Your task to perform on an android device: turn off notifications settings in the gmail app Image 0: 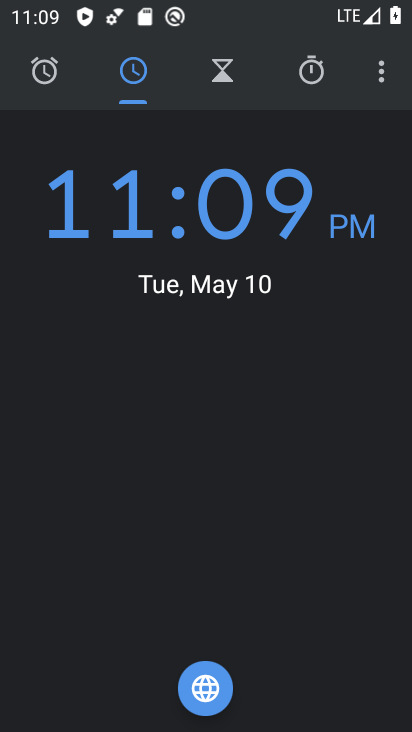
Step 0: press home button
Your task to perform on an android device: turn off notifications settings in the gmail app Image 1: 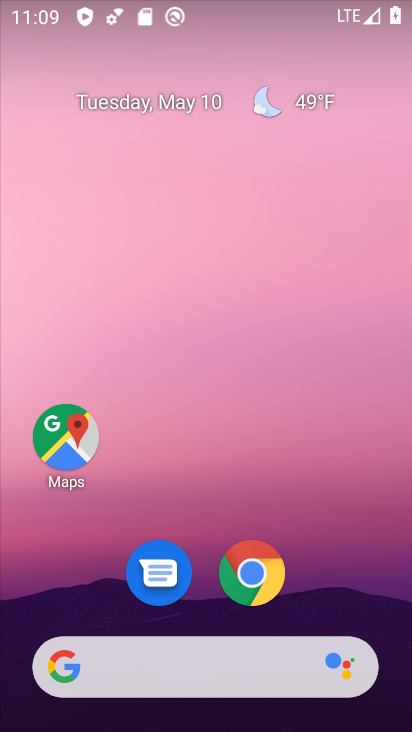
Step 1: drag from (150, 679) to (338, 85)
Your task to perform on an android device: turn off notifications settings in the gmail app Image 2: 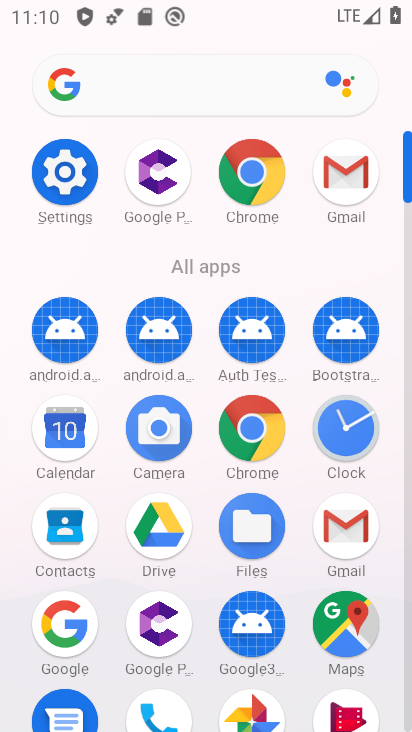
Step 2: click (346, 184)
Your task to perform on an android device: turn off notifications settings in the gmail app Image 3: 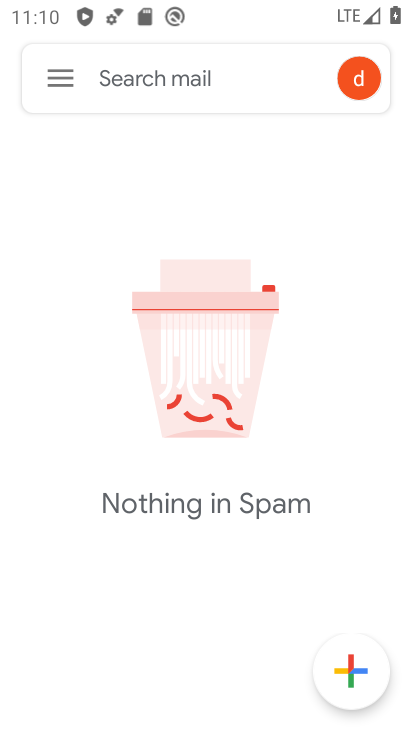
Step 3: click (59, 79)
Your task to perform on an android device: turn off notifications settings in the gmail app Image 4: 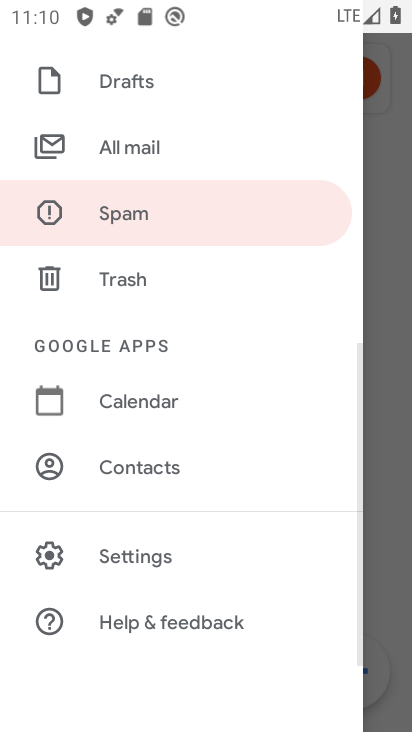
Step 4: click (147, 550)
Your task to perform on an android device: turn off notifications settings in the gmail app Image 5: 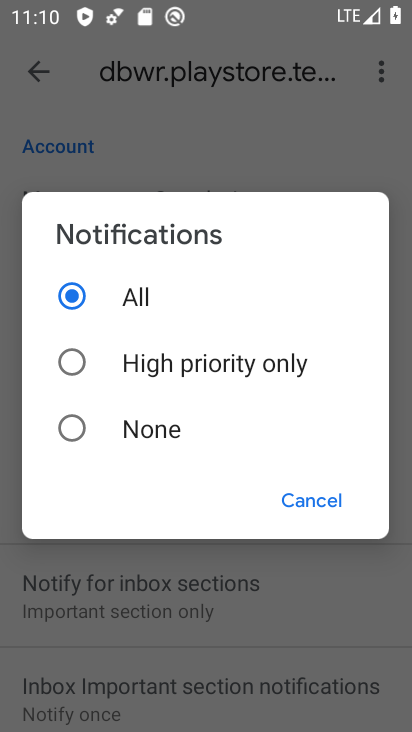
Step 5: click (72, 427)
Your task to perform on an android device: turn off notifications settings in the gmail app Image 6: 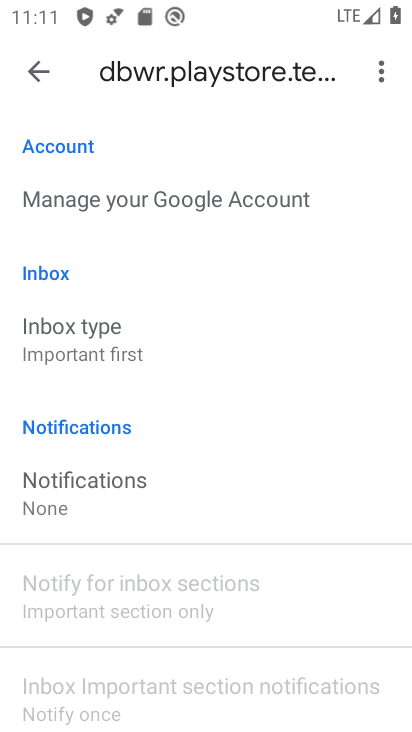
Step 6: task complete